Your task to perform on an android device: Search for seafood restaurants on Google Maps Image 0: 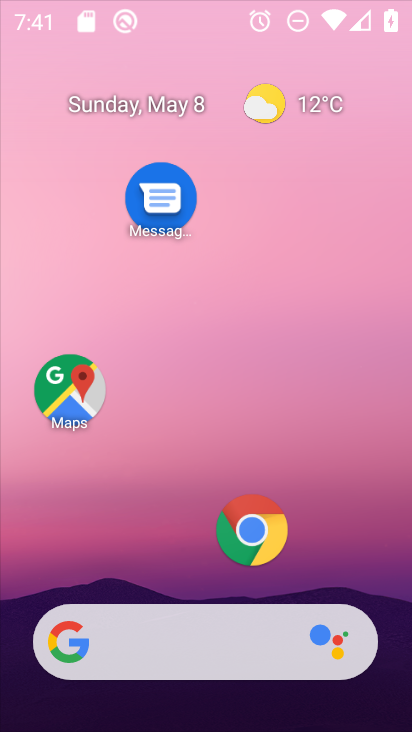
Step 0: press home button
Your task to perform on an android device: Search for seafood restaurants on Google Maps Image 1: 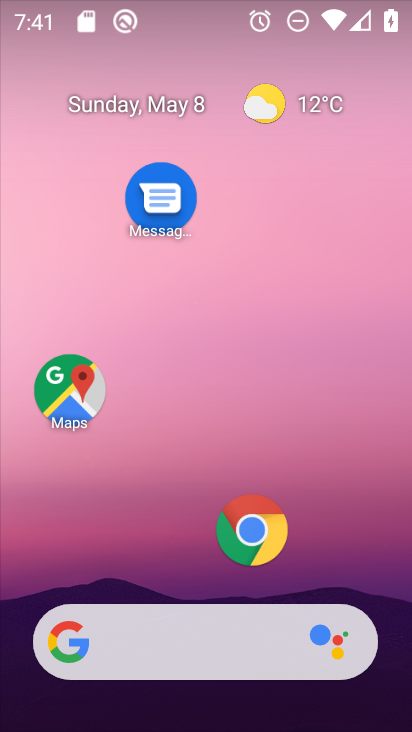
Step 1: drag from (200, 579) to (218, 1)
Your task to perform on an android device: Search for seafood restaurants on Google Maps Image 2: 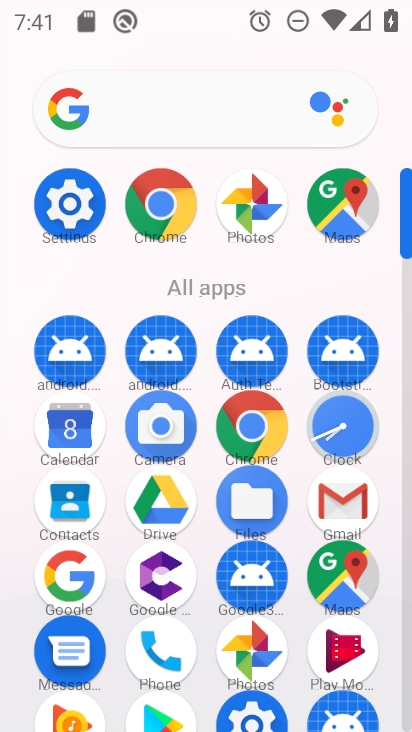
Step 2: click (342, 571)
Your task to perform on an android device: Search for seafood restaurants on Google Maps Image 3: 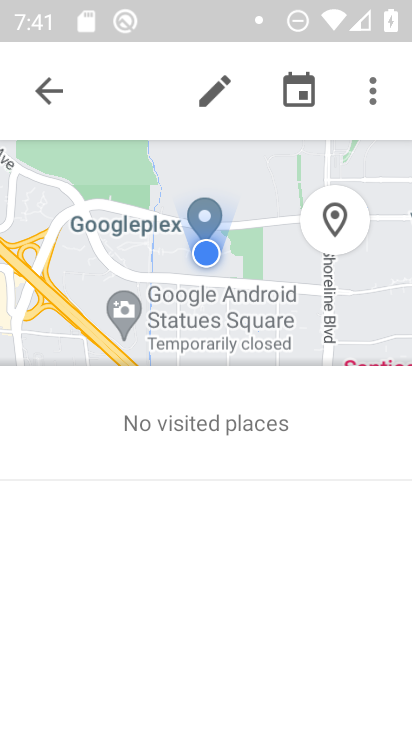
Step 3: click (50, 92)
Your task to perform on an android device: Search for seafood restaurants on Google Maps Image 4: 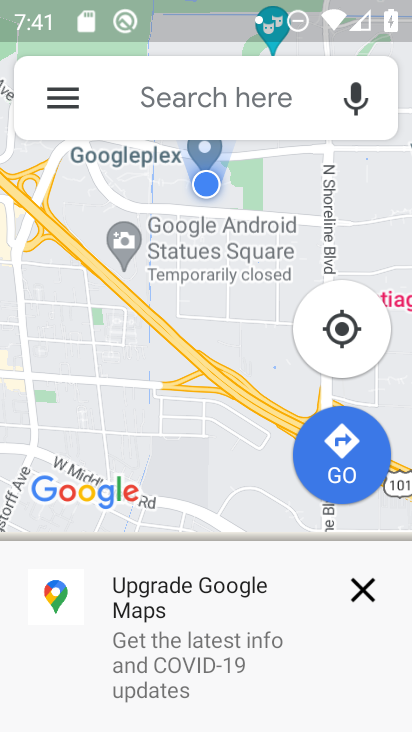
Step 4: click (359, 592)
Your task to perform on an android device: Search for seafood restaurants on Google Maps Image 5: 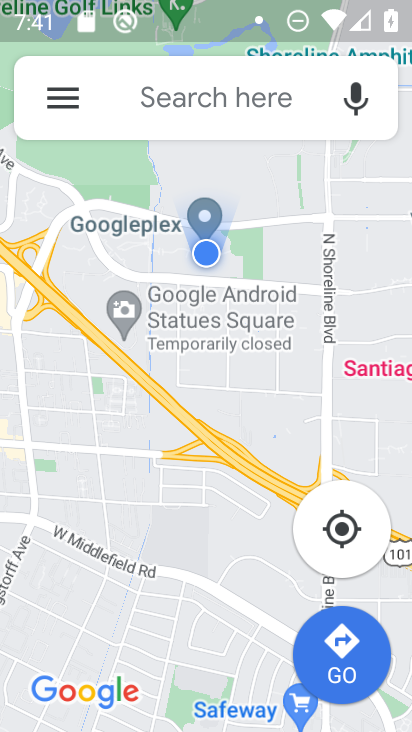
Step 5: click (157, 89)
Your task to perform on an android device: Search for seafood restaurants on Google Maps Image 6: 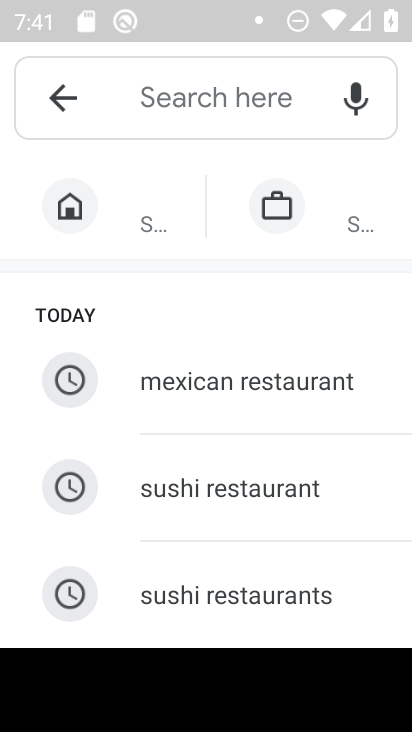
Step 6: type "seafood"
Your task to perform on an android device: Search for seafood restaurants on Google Maps Image 7: 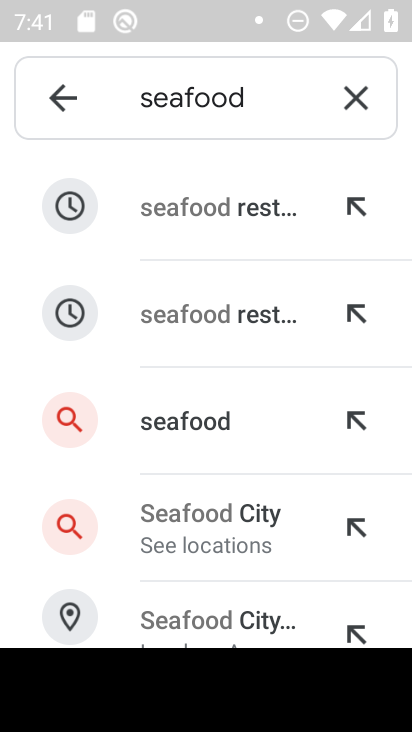
Step 7: click (214, 238)
Your task to perform on an android device: Search for seafood restaurants on Google Maps Image 8: 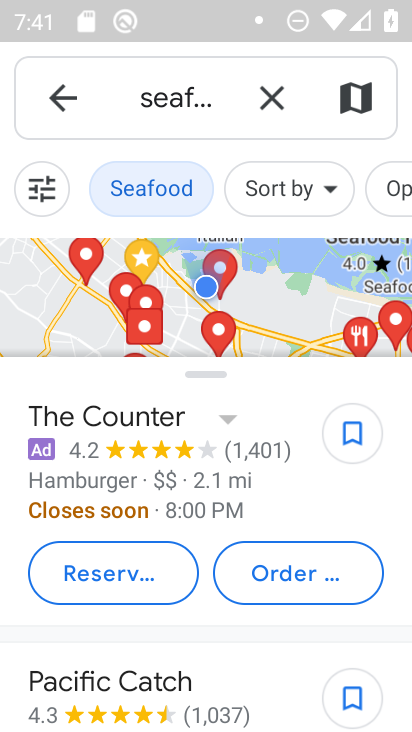
Step 8: task complete